Your task to perform on an android device: star an email in the gmail app Image 0: 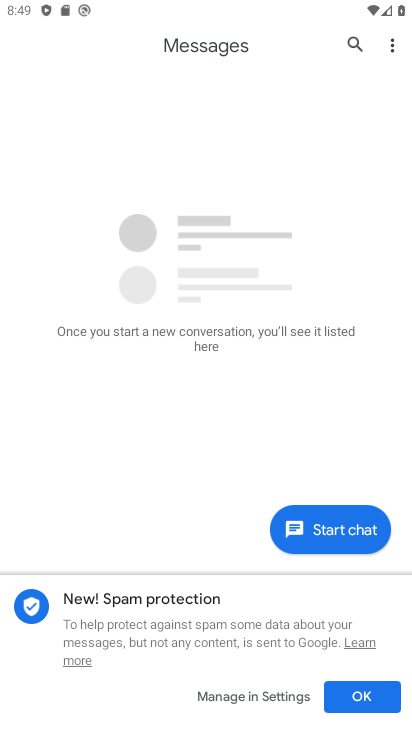
Step 0: drag from (203, 634) to (209, 211)
Your task to perform on an android device: star an email in the gmail app Image 1: 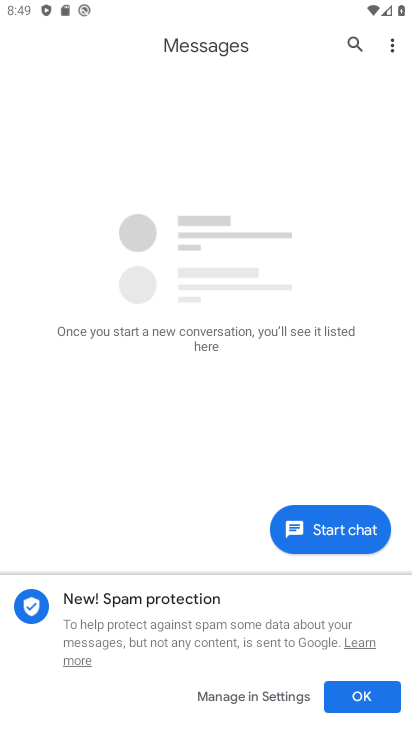
Step 1: press home button
Your task to perform on an android device: star an email in the gmail app Image 2: 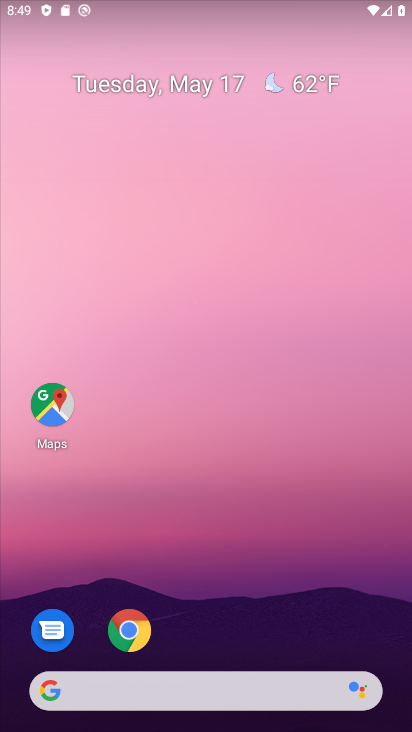
Step 2: drag from (209, 618) to (168, 187)
Your task to perform on an android device: star an email in the gmail app Image 3: 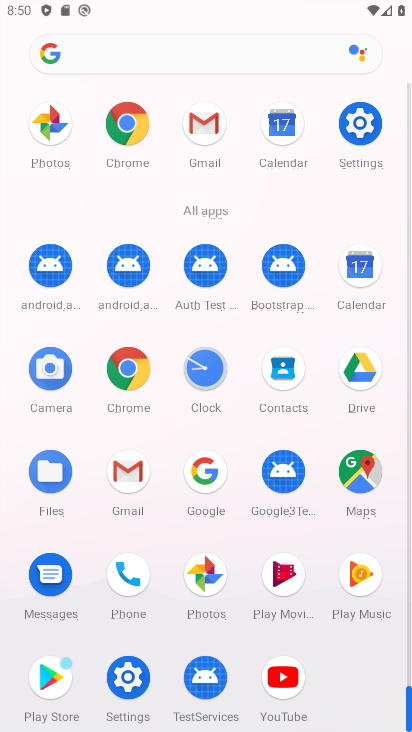
Step 3: click (208, 145)
Your task to perform on an android device: star an email in the gmail app Image 4: 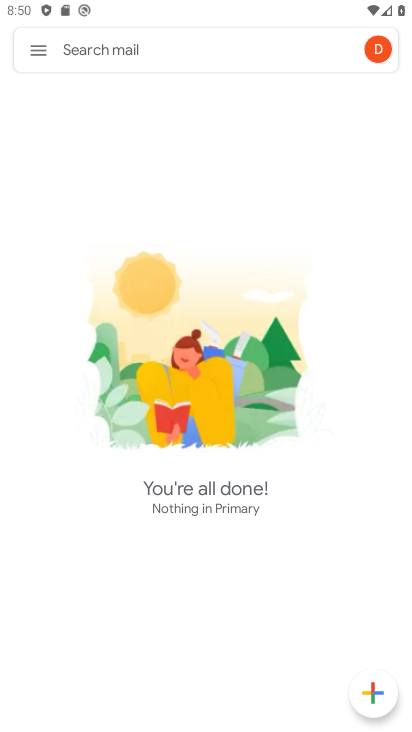
Step 4: click (48, 55)
Your task to perform on an android device: star an email in the gmail app Image 5: 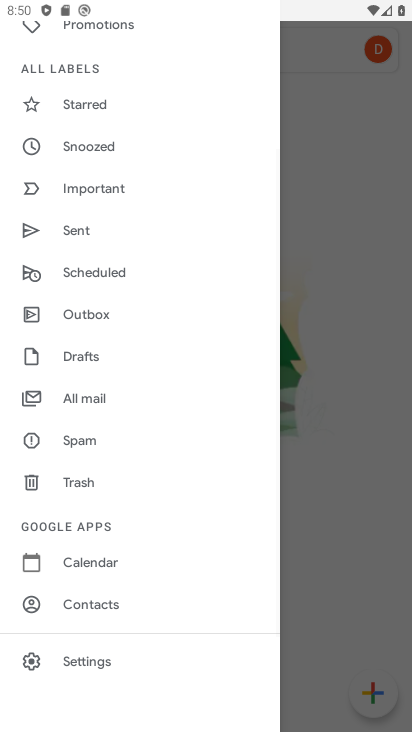
Step 5: click (114, 397)
Your task to perform on an android device: star an email in the gmail app Image 6: 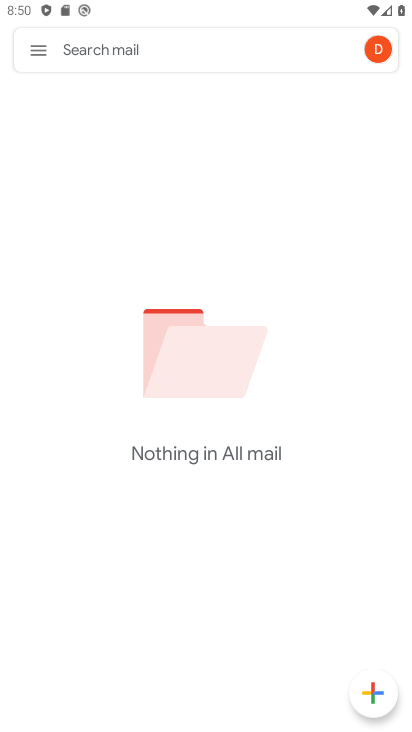
Step 6: task complete